Your task to perform on an android device: Search for "razer blade" on costco, select the first entry, add it to the cart, then select checkout. Image 0: 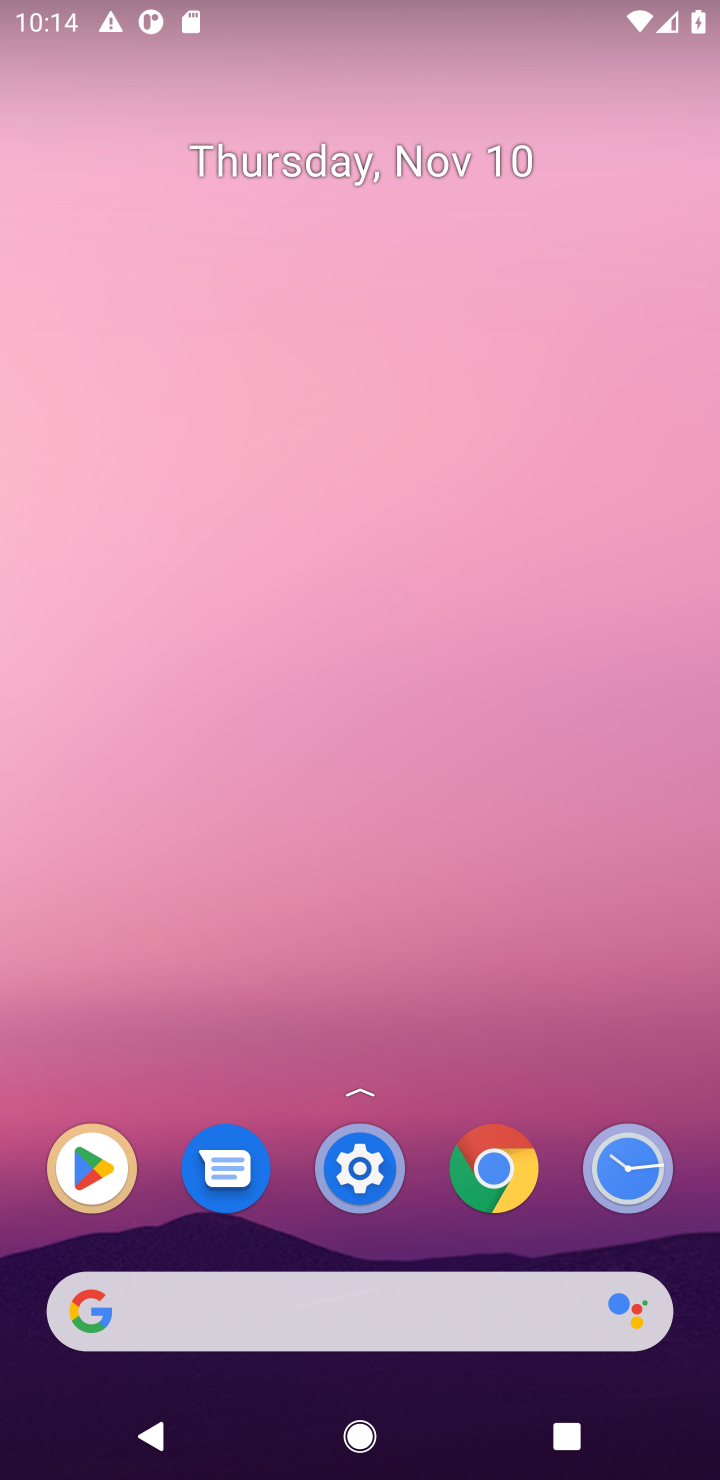
Step 0: click (497, 1177)
Your task to perform on an android device: Search for "razer blade" on costco, select the first entry, add it to the cart, then select checkout. Image 1: 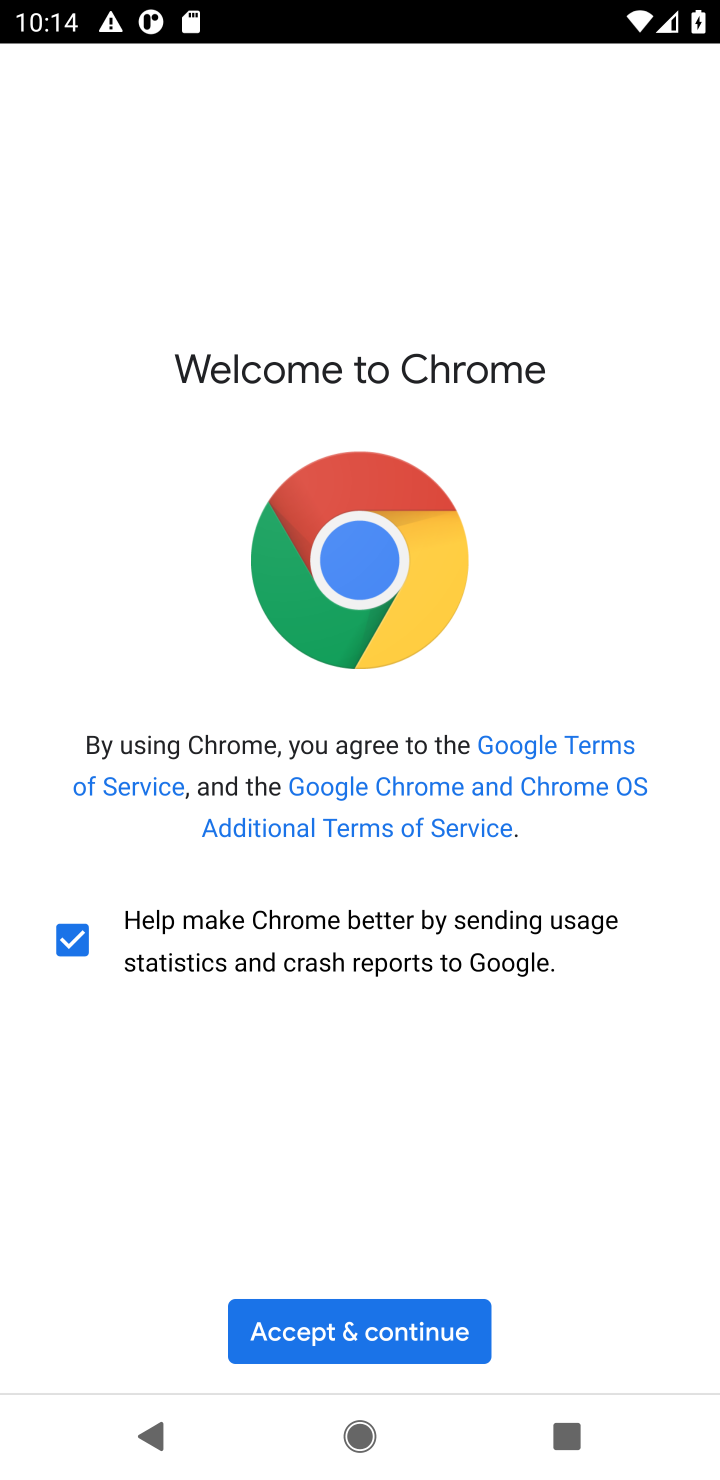
Step 1: click (333, 1320)
Your task to perform on an android device: Search for "razer blade" on costco, select the first entry, add it to the cart, then select checkout. Image 2: 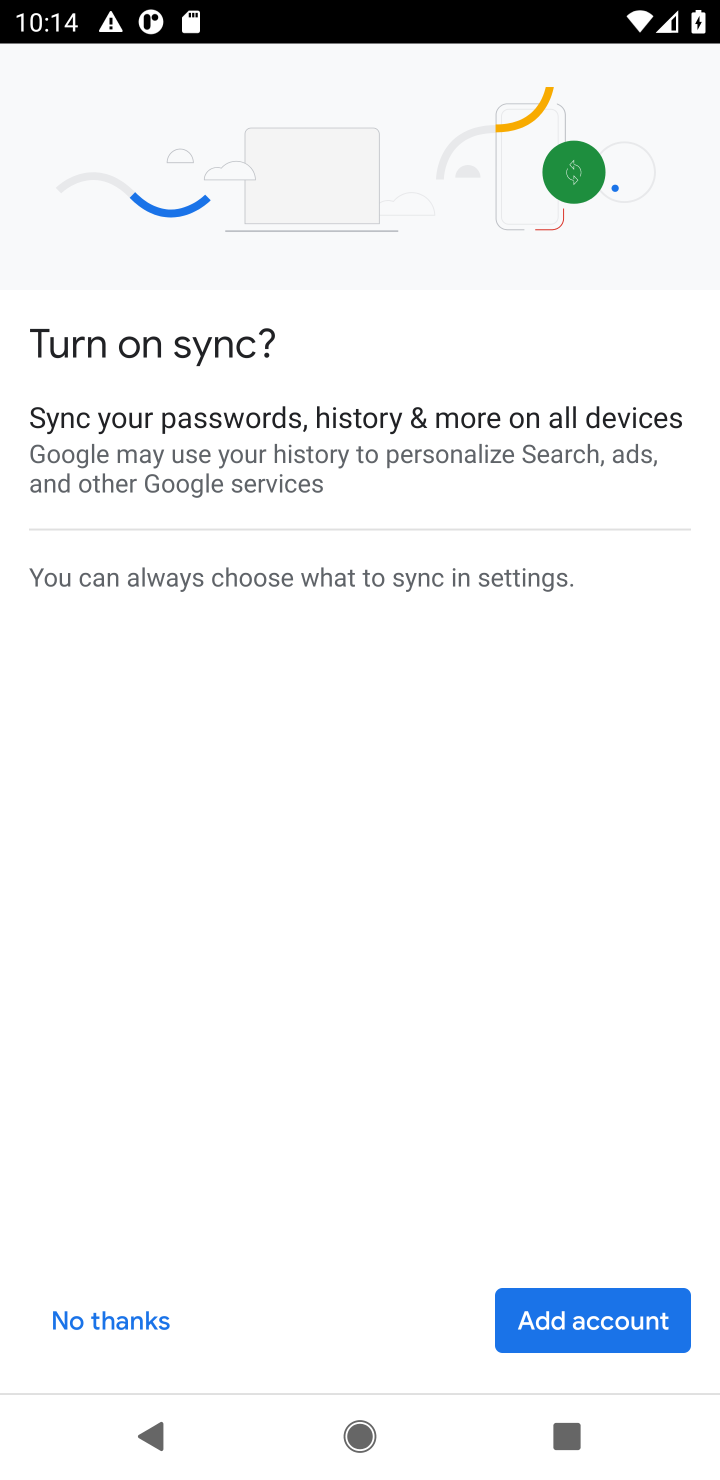
Step 2: click (122, 1329)
Your task to perform on an android device: Search for "razer blade" on costco, select the first entry, add it to the cart, then select checkout. Image 3: 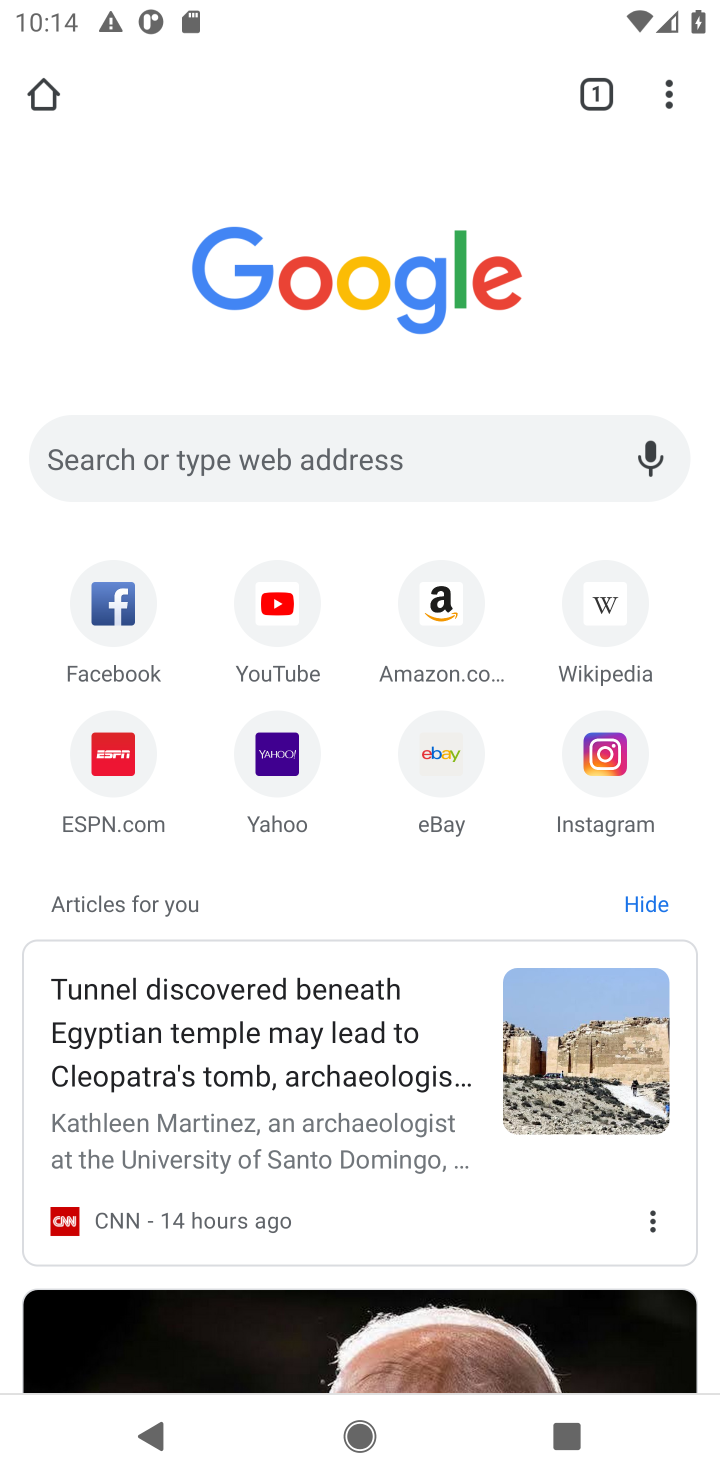
Step 3: click (214, 465)
Your task to perform on an android device: Search for "razer blade" on costco, select the first entry, add it to the cart, then select checkout. Image 4: 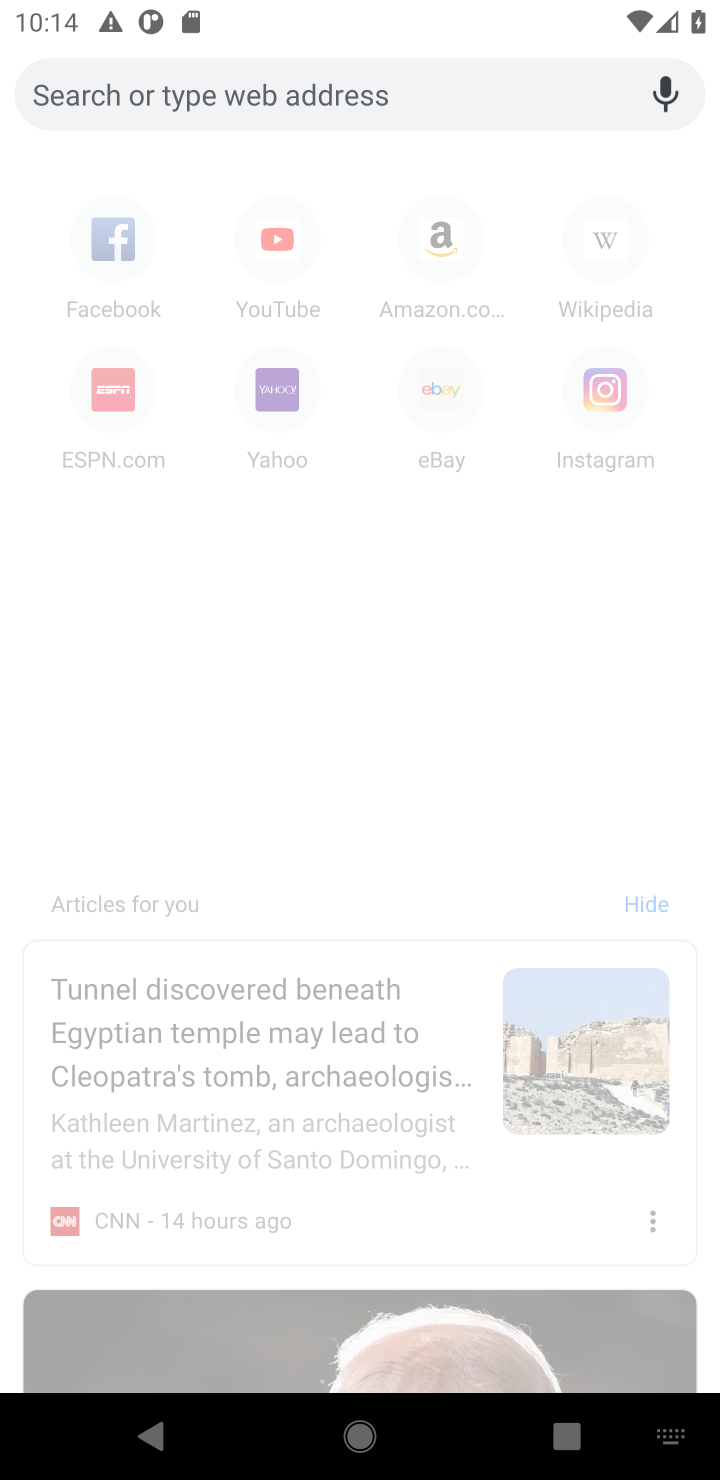
Step 4: type "costco.com"
Your task to perform on an android device: Search for "razer blade" on costco, select the first entry, add it to the cart, then select checkout. Image 5: 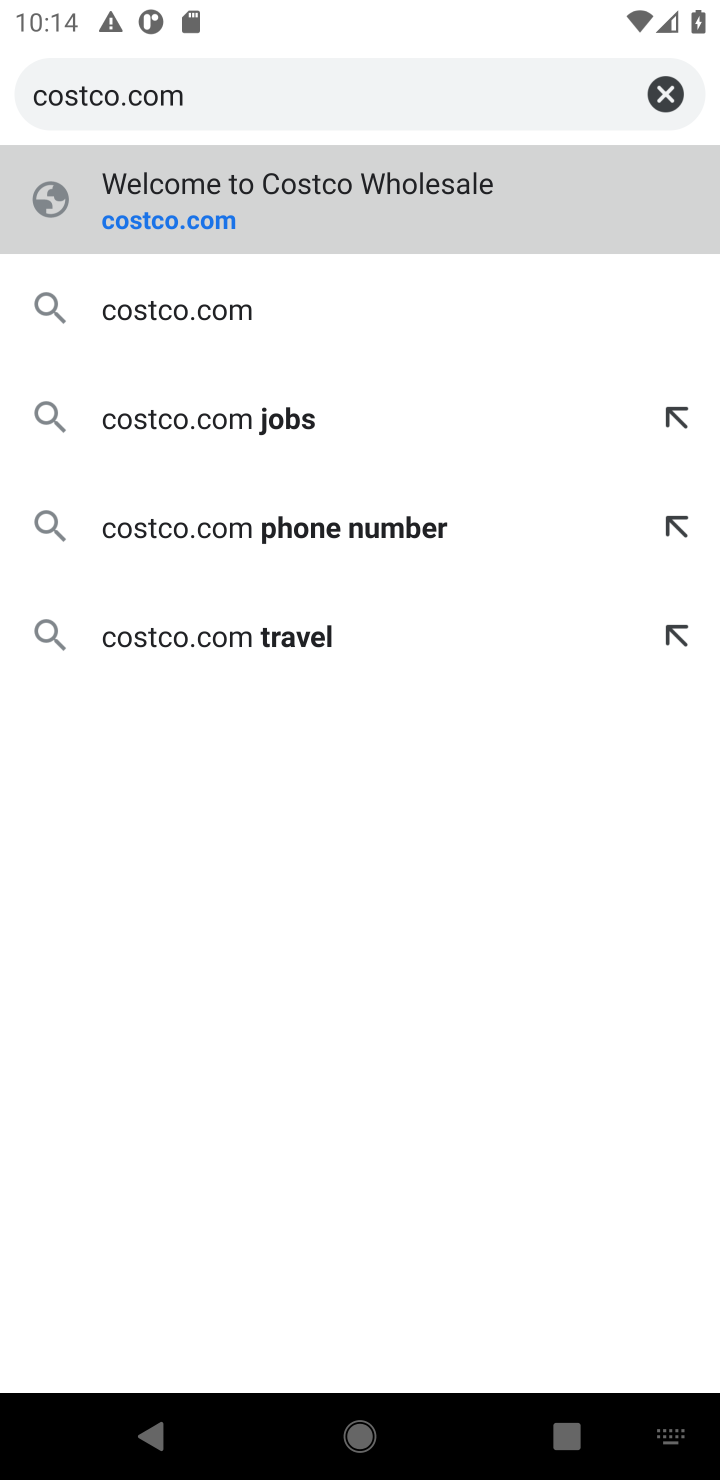
Step 5: click (154, 228)
Your task to perform on an android device: Search for "razer blade" on costco, select the first entry, add it to the cart, then select checkout. Image 6: 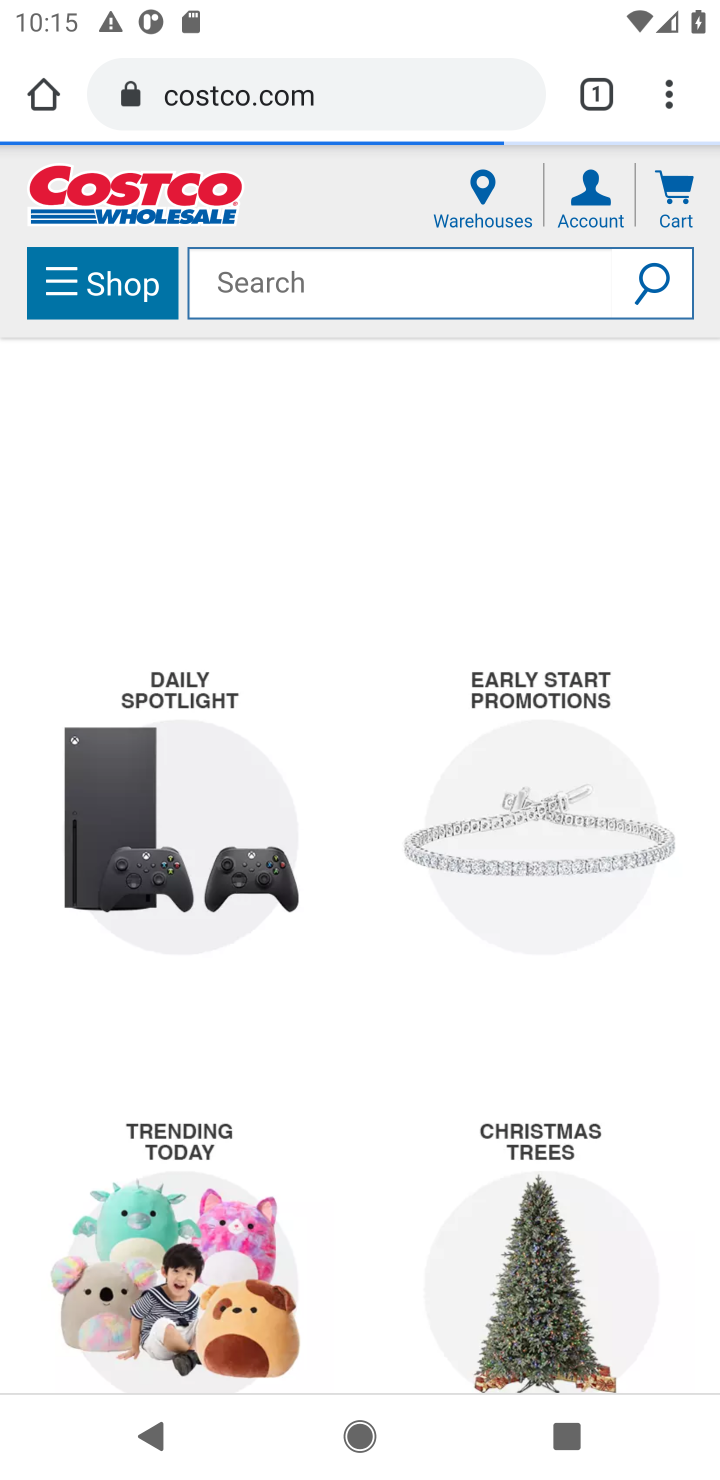
Step 6: click (298, 247)
Your task to perform on an android device: Search for "razer blade" on costco, select the first entry, add it to the cart, then select checkout. Image 7: 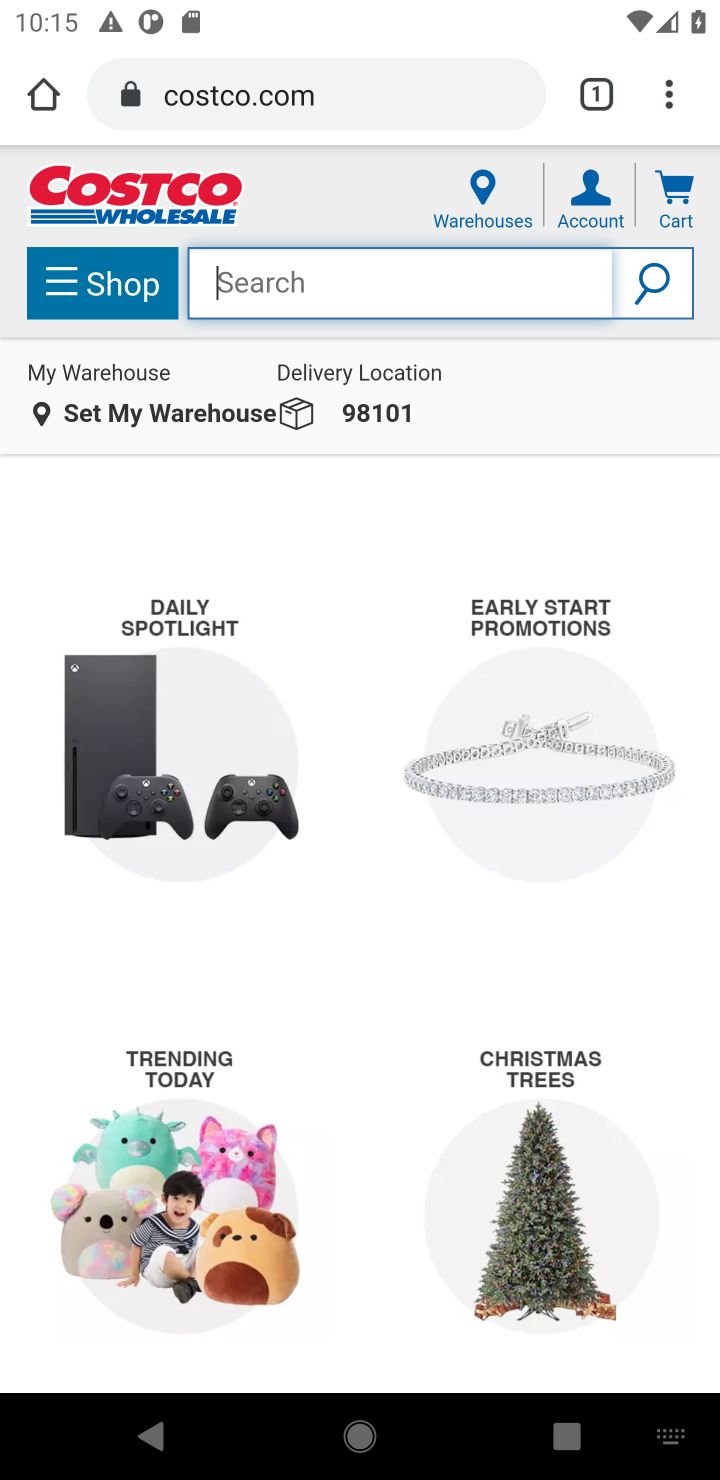
Step 7: type "razer blade"
Your task to perform on an android device: Search for "razer blade" on costco, select the first entry, add it to the cart, then select checkout. Image 8: 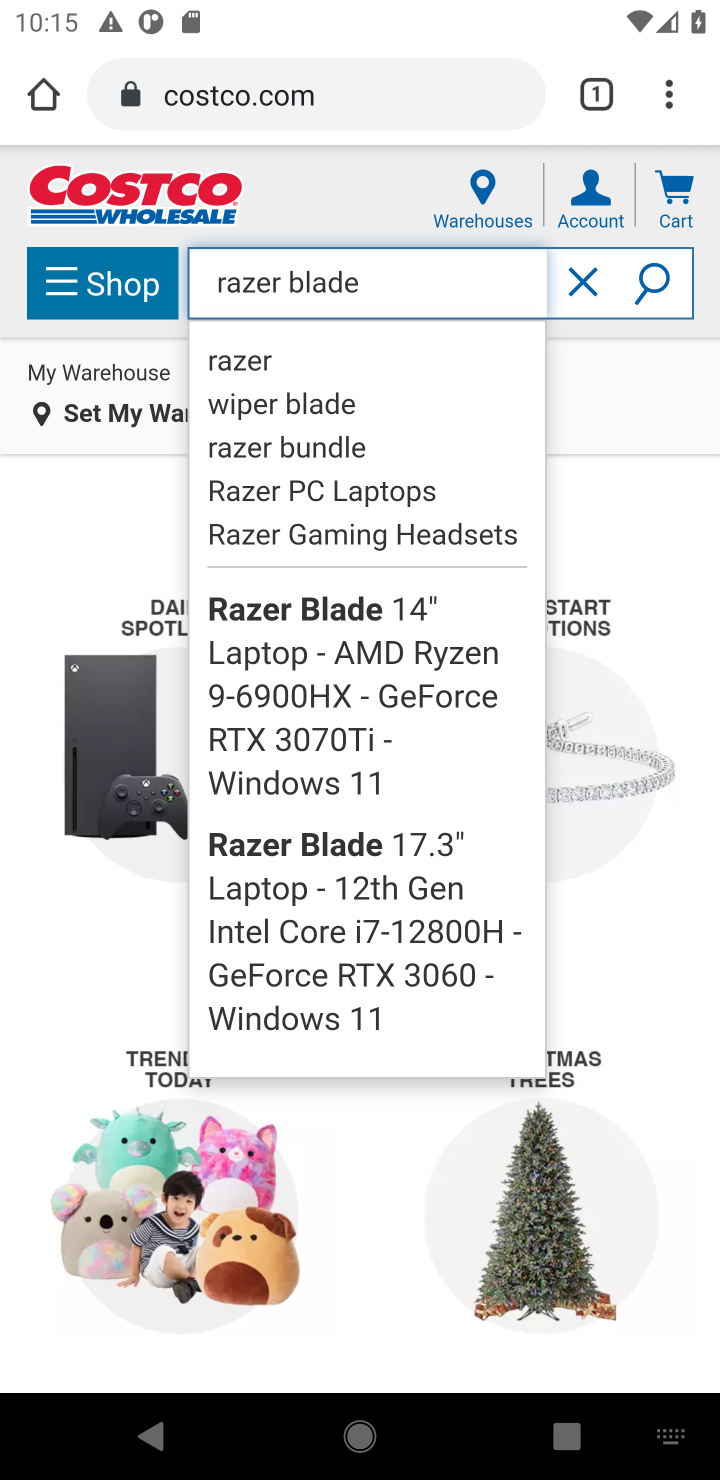
Step 8: click (649, 291)
Your task to perform on an android device: Search for "razer blade" on costco, select the first entry, add it to the cart, then select checkout. Image 9: 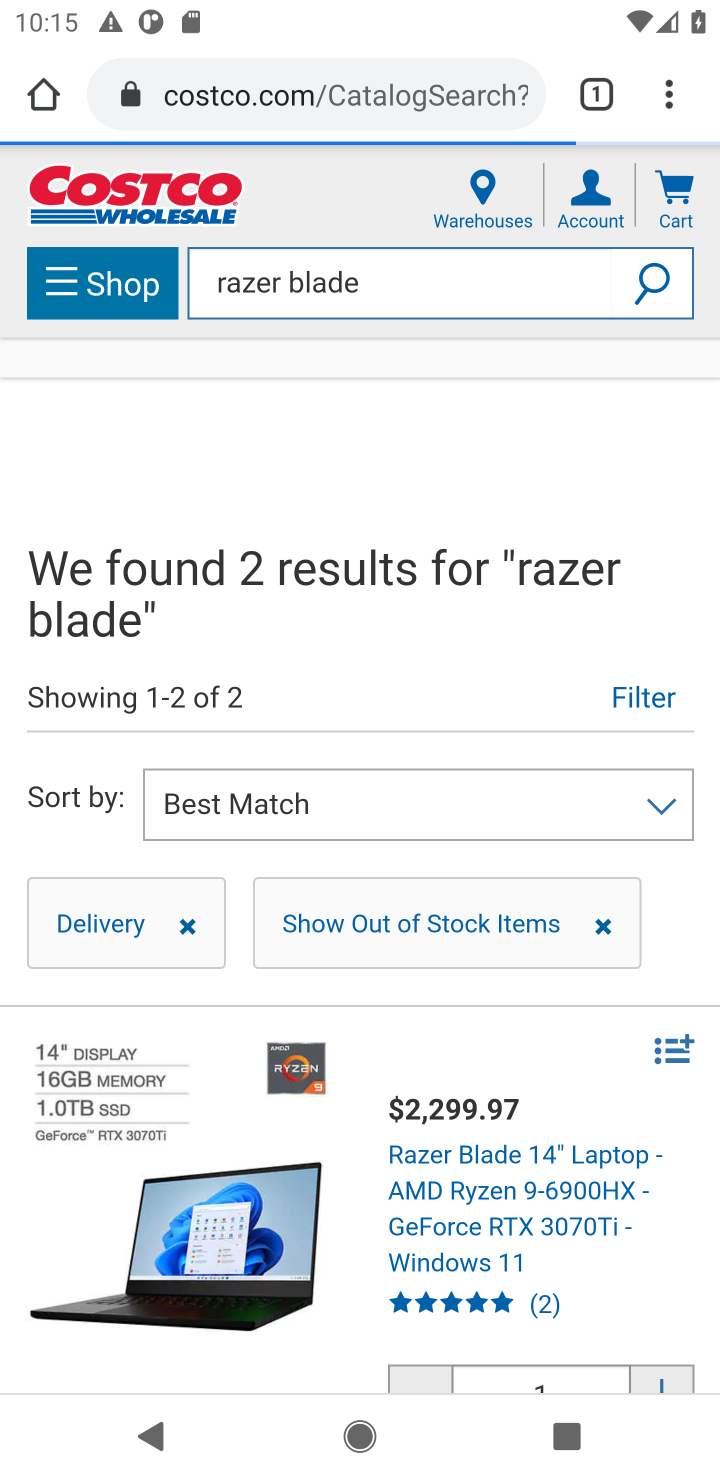
Step 9: drag from (253, 1180) to (270, 667)
Your task to perform on an android device: Search for "razer blade" on costco, select the first entry, add it to the cart, then select checkout. Image 10: 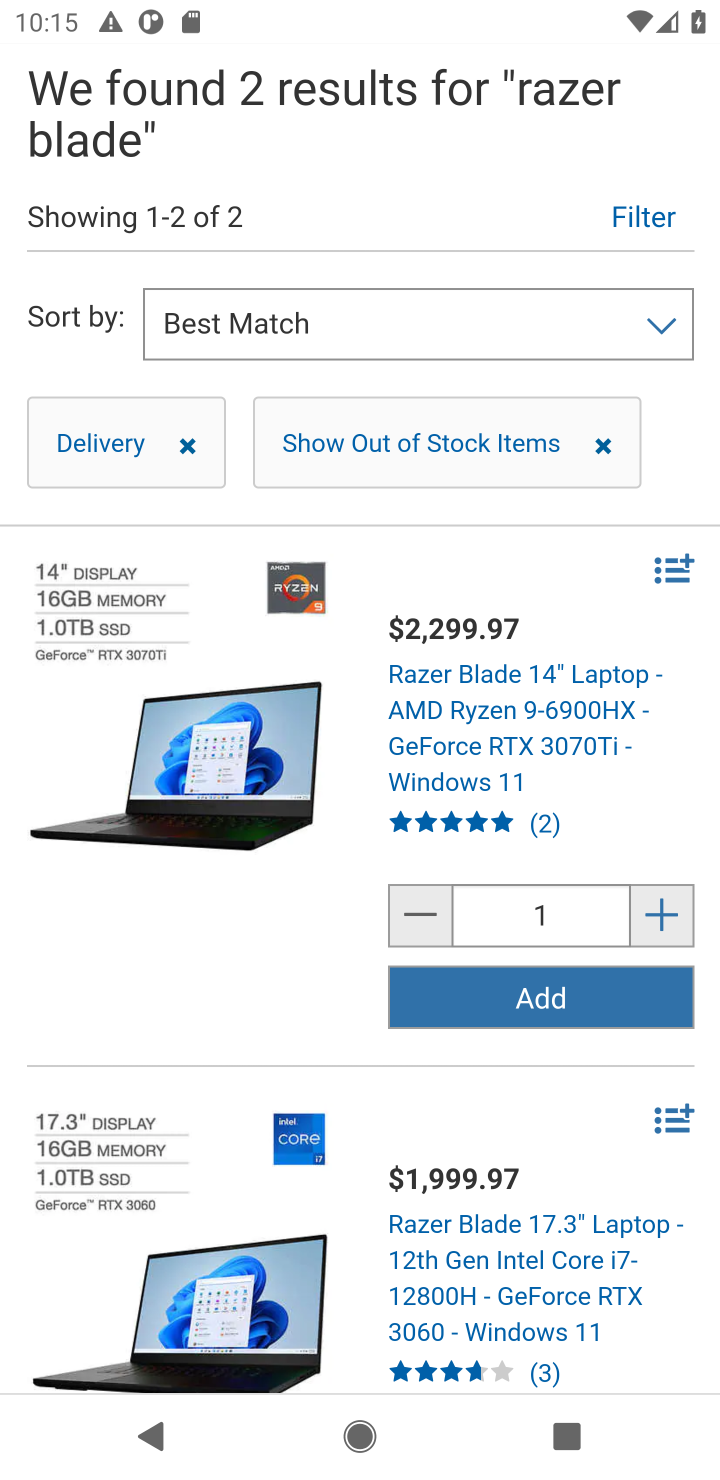
Step 10: click (530, 1008)
Your task to perform on an android device: Search for "razer blade" on costco, select the first entry, add it to the cart, then select checkout. Image 11: 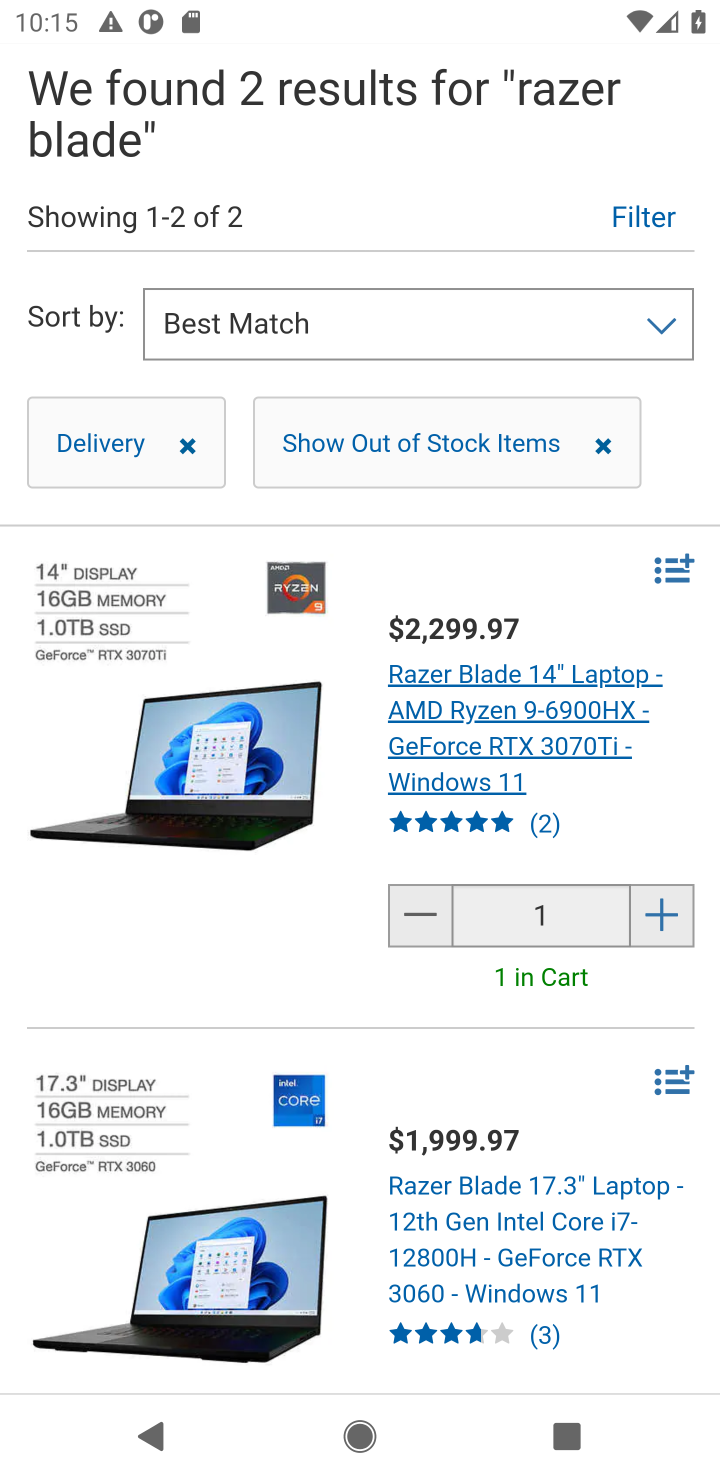
Step 11: drag from (619, 463) to (583, 959)
Your task to perform on an android device: Search for "razer blade" on costco, select the first entry, add it to the cart, then select checkout. Image 12: 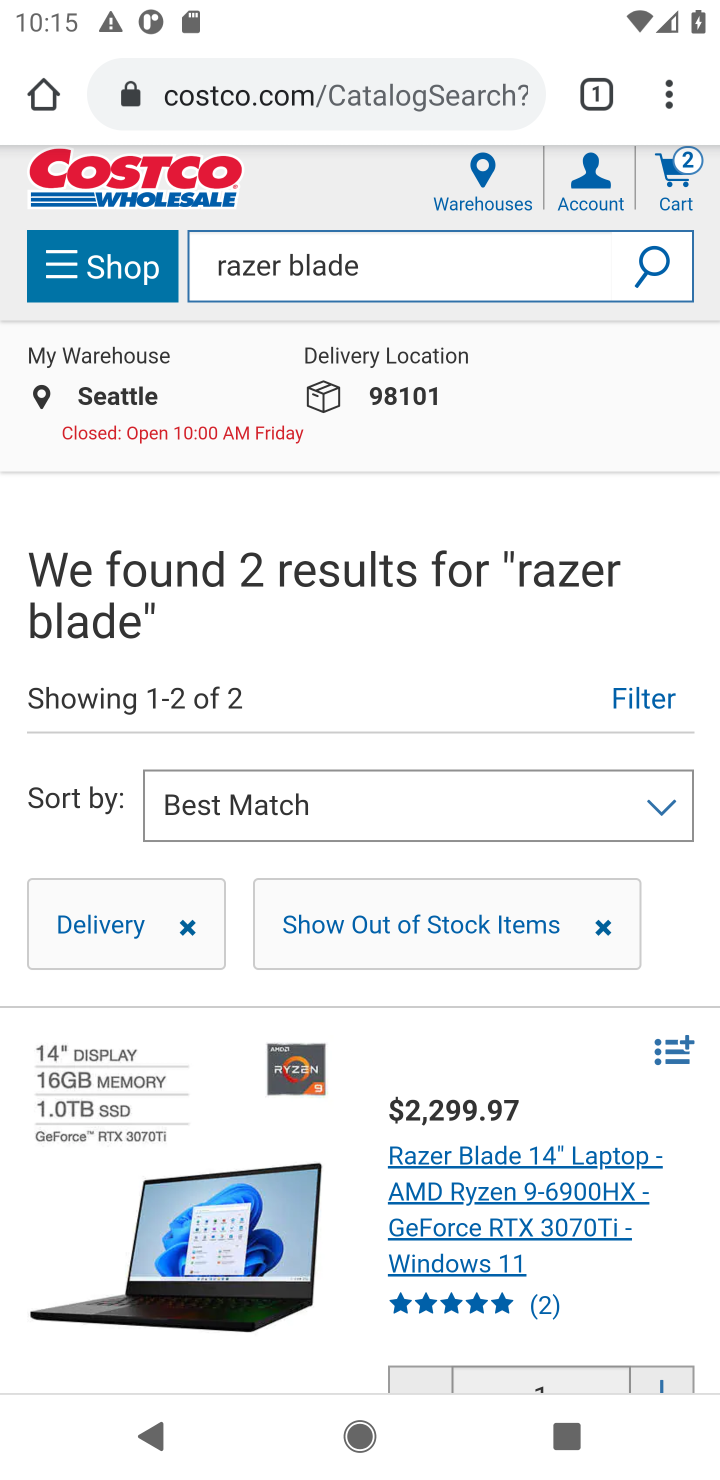
Step 12: click (679, 187)
Your task to perform on an android device: Search for "razer blade" on costco, select the first entry, add it to the cart, then select checkout. Image 13: 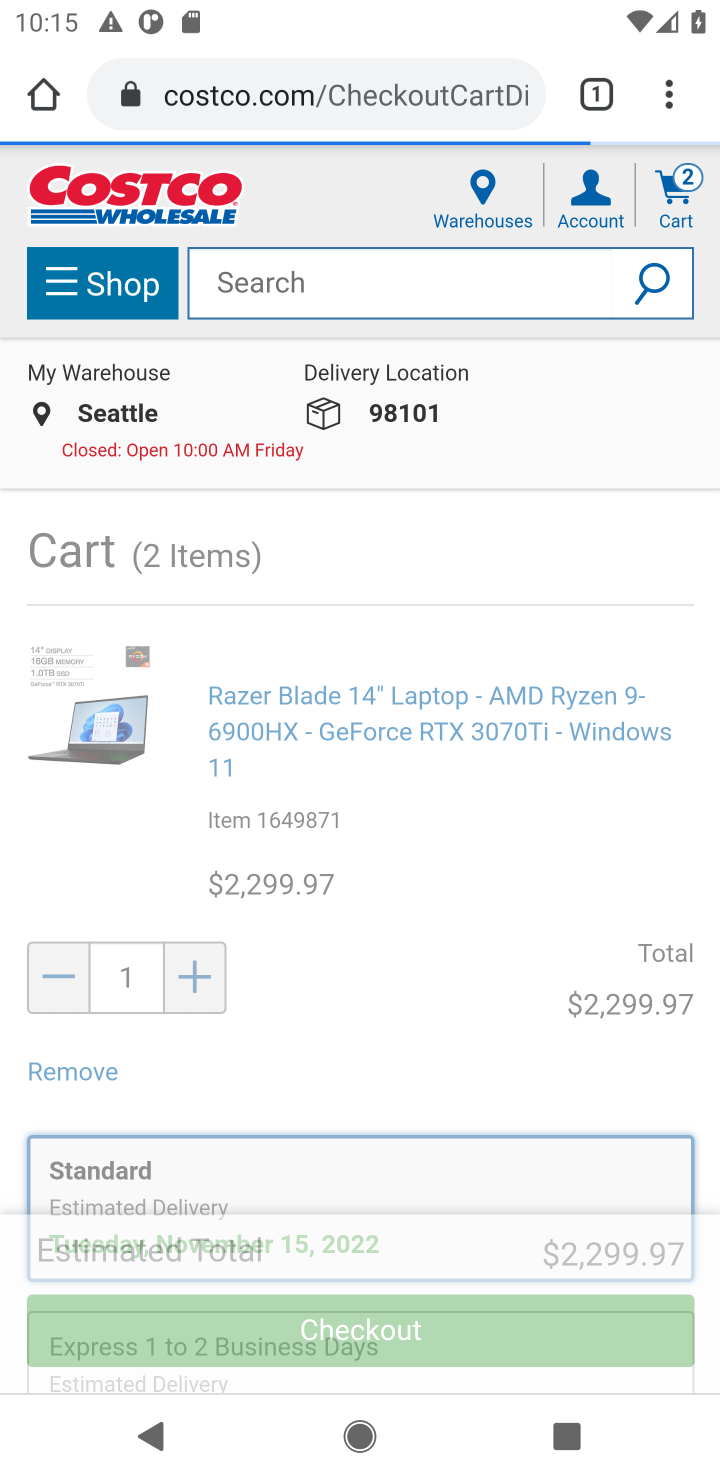
Step 13: drag from (345, 1066) to (318, 821)
Your task to perform on an android device: Search for "razer blade" on costco, select the first entry, add it to the cart, then select checkout. Image 14: 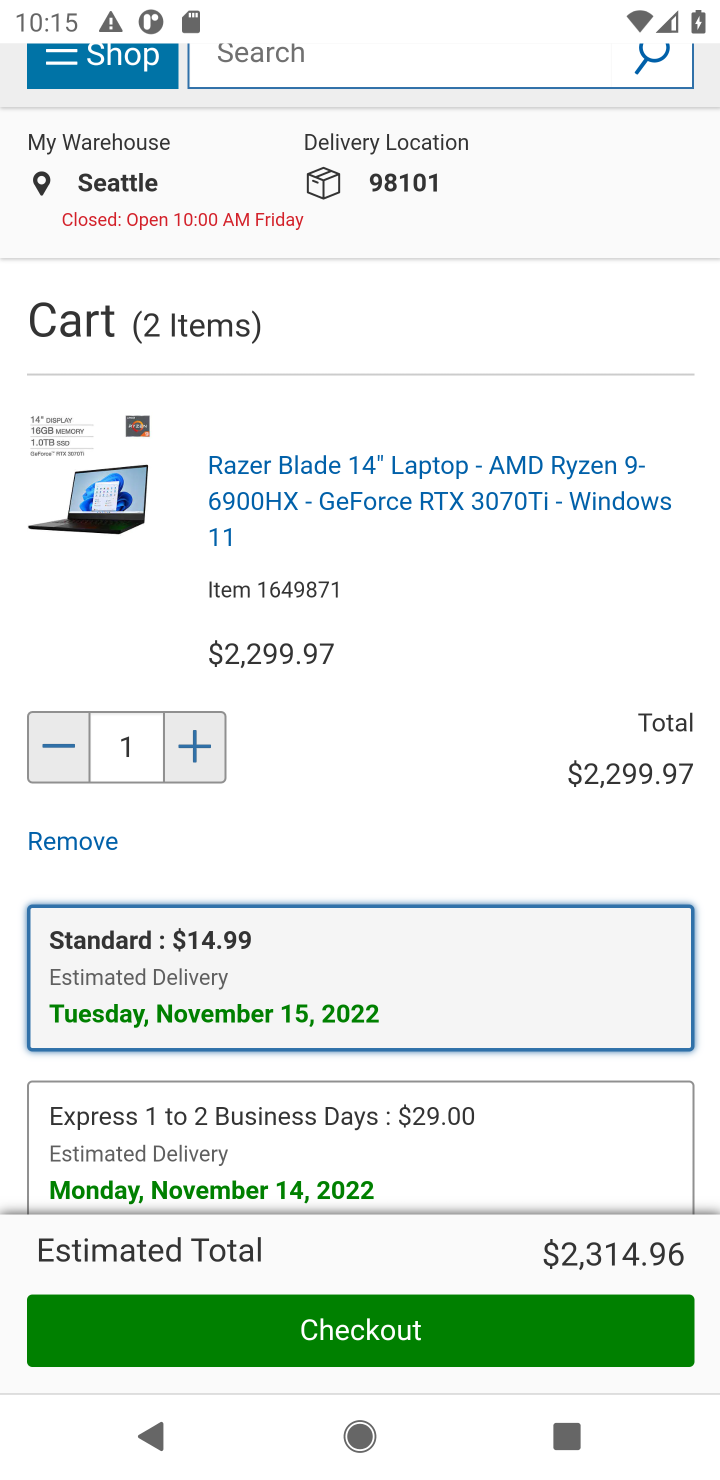
Step 14: click (336, 1324)
Your task to perform on an android device: Search for "razer blade" on costco, select the first entry, add it to the cart, then select checkout. Image 15: 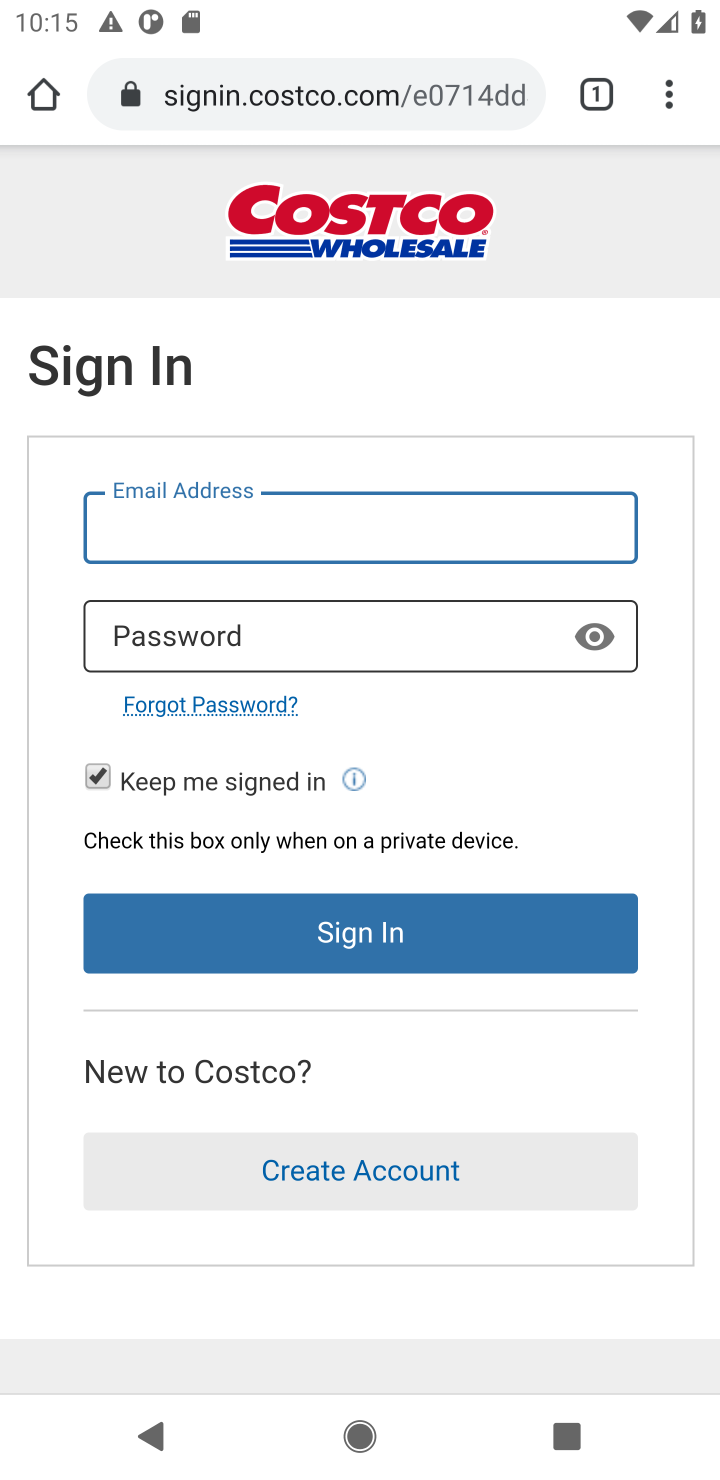
Step 15: task complete